Your task to perform on an android device: turn notification dots off Image 0: 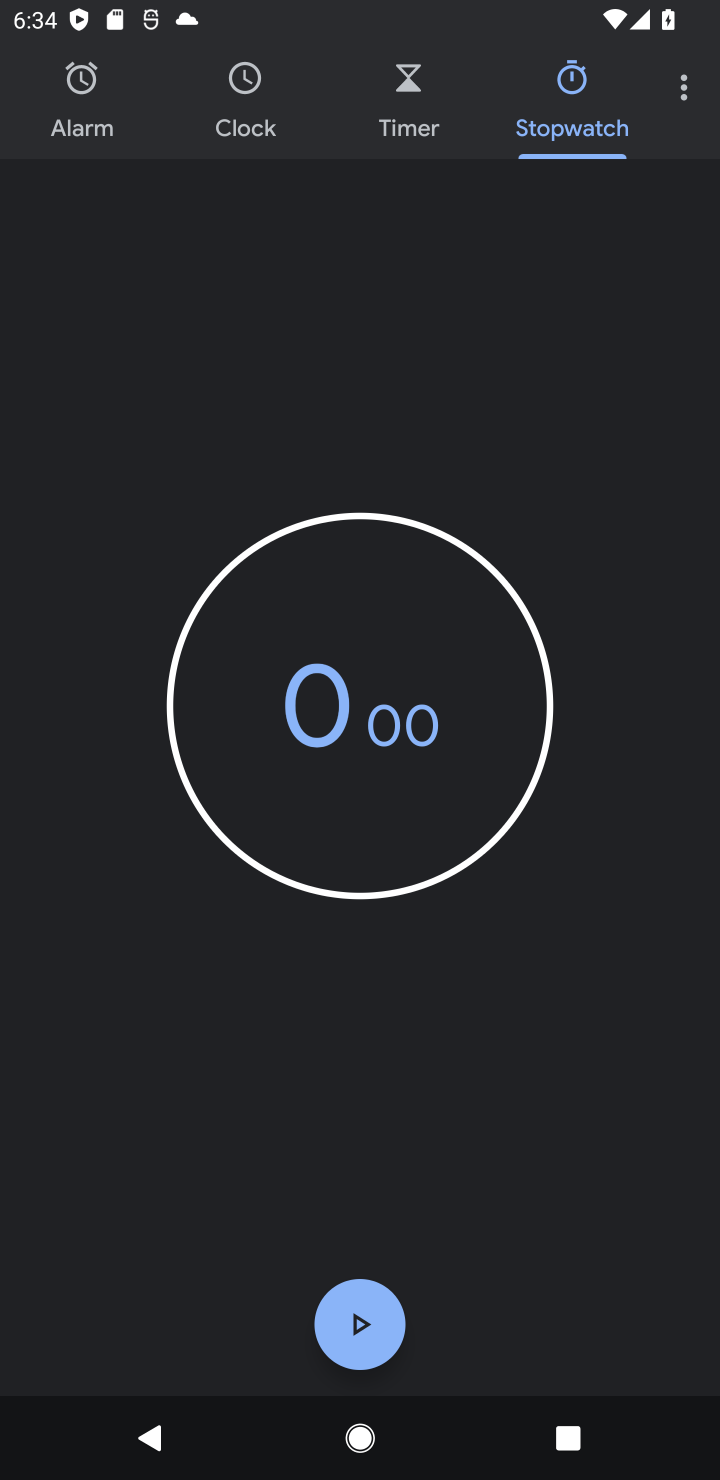
Step 0: press home button
Your task to perform on an android device: turn notification dots off Image 1: 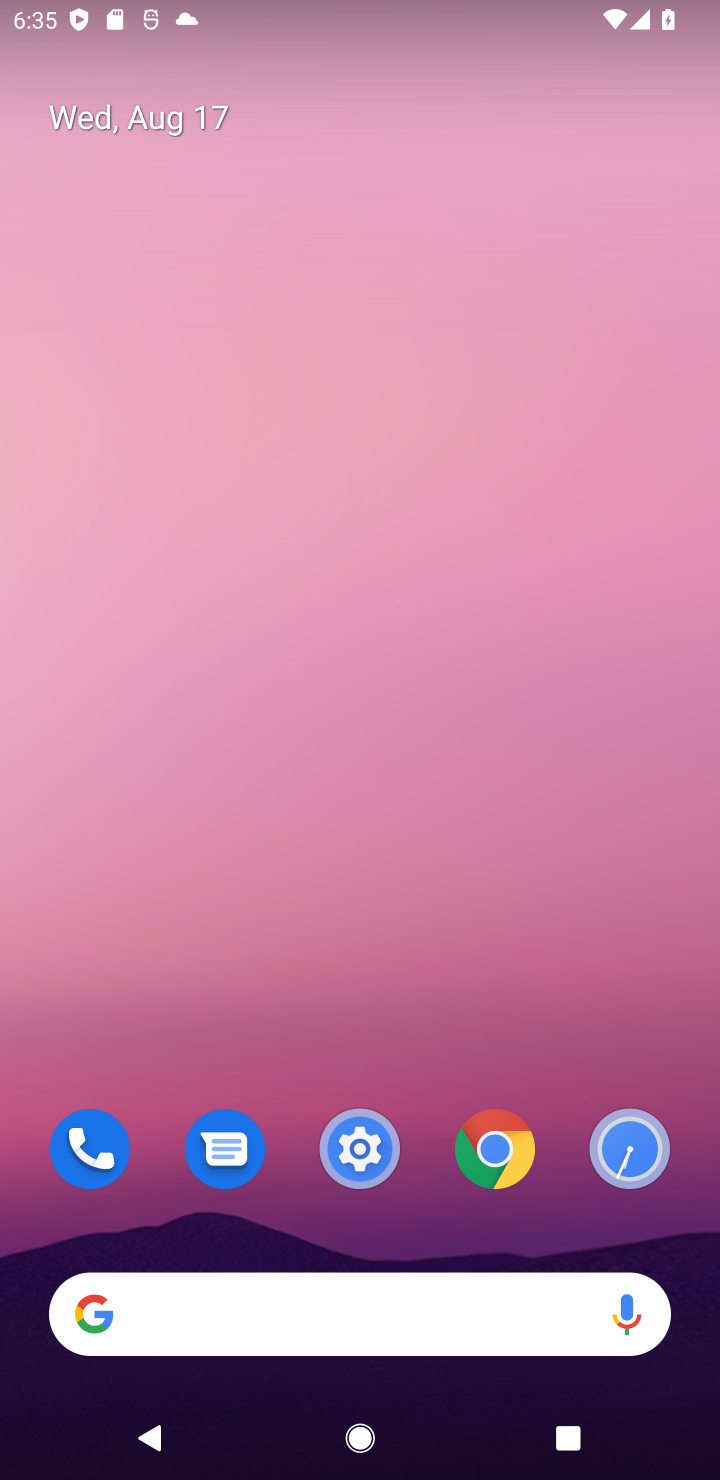
Step 1: click (364, 1152)
Your task to perform on an android device: turn notification dots off Image 2: 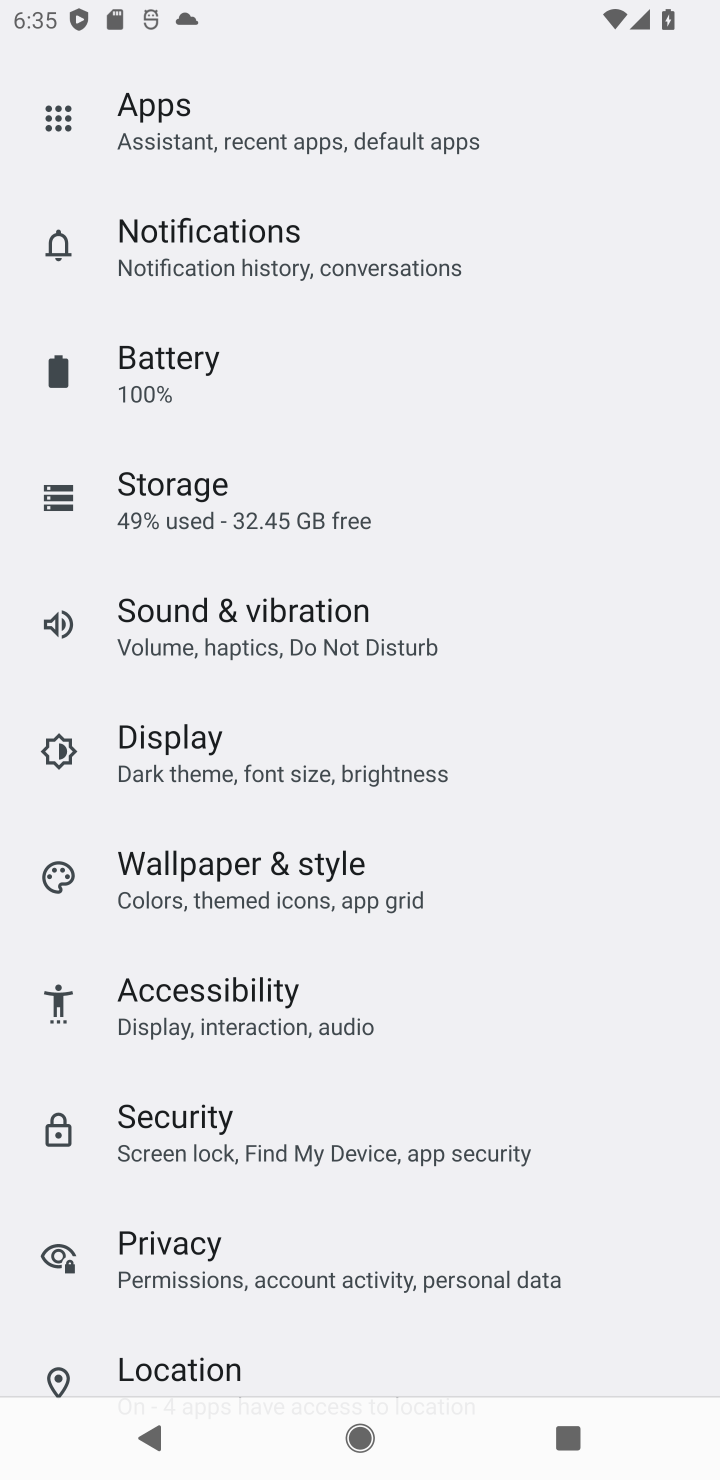
Step 2: click (259, 227)
Your task to perform on an android device: turn notification dots off Image 3: 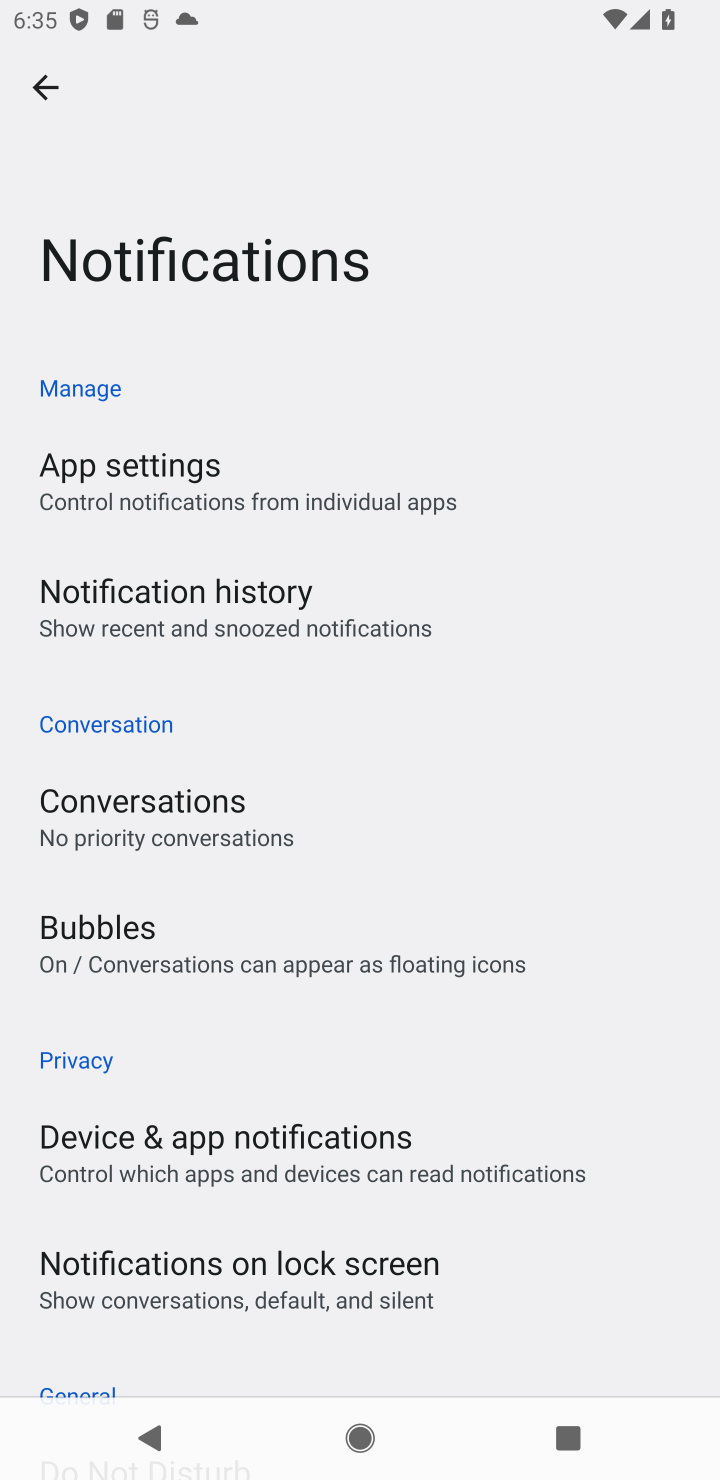
Step 3: task complete